Your task to perform on an android device: Go to ESPN.com Image 0: 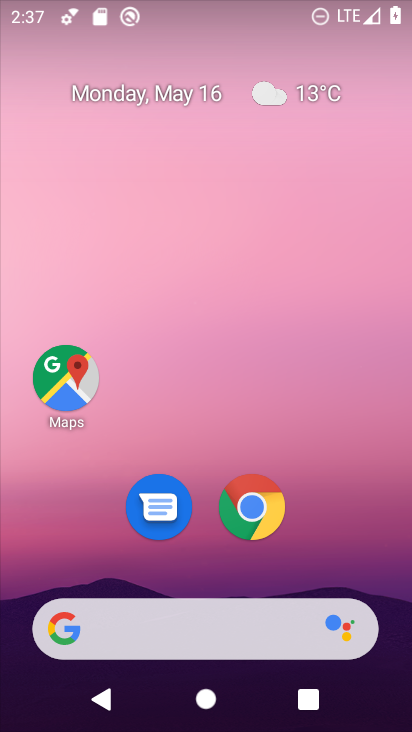
Step 0: click (260, 517)
Your task to perform on an android device: Go to ESPN.com Image 1: 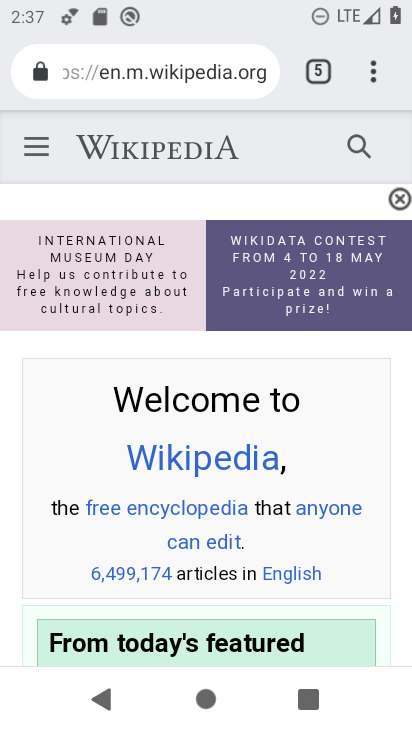
Step 1: click (321, 73)
Your task to perform on an android device: Go to ESPN.com Image 2: 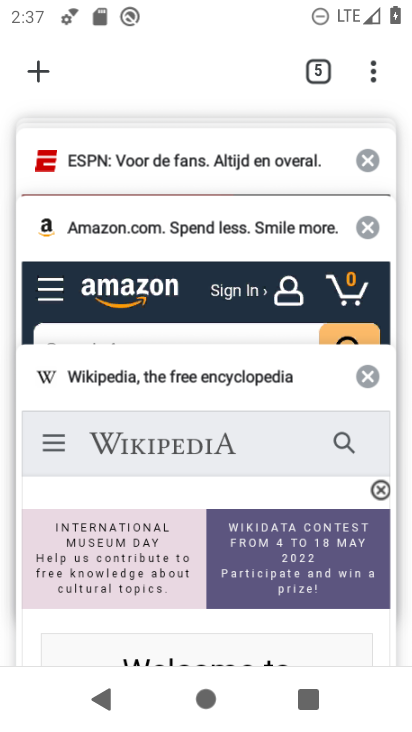
Step 2: click (188, 158)
Your task to perform on an android device: Go to ESPN.com Image 3: 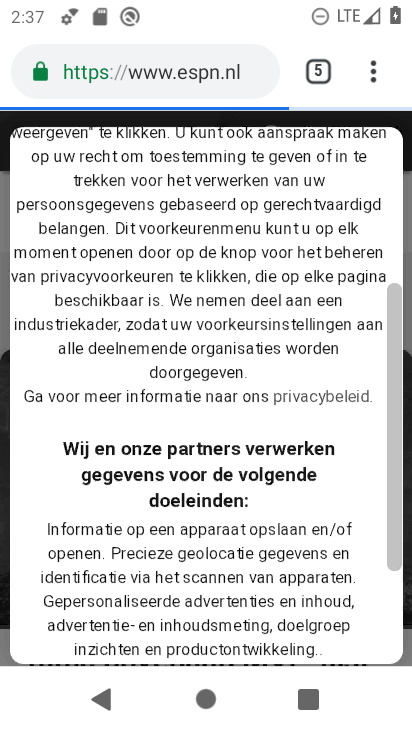
Step 3: task complete